Your task to perform on an android device: remove spam from my inbox in the gmail app Image 0: 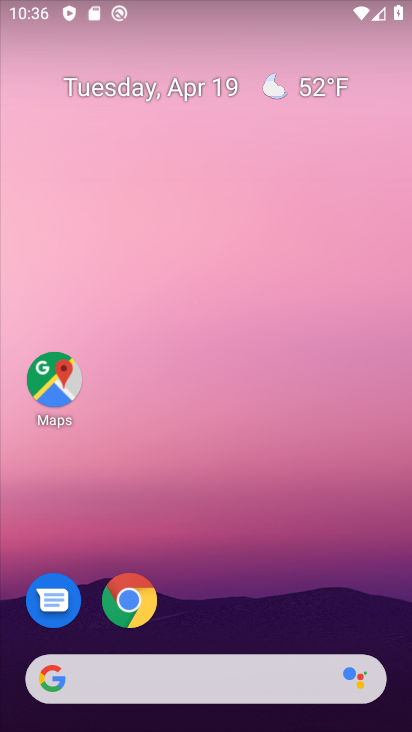
Step 0: drag from (195, 641) to (218, 45)
Your task to perform on an android device: remove spam from my inbox in the gmail app Image 1: 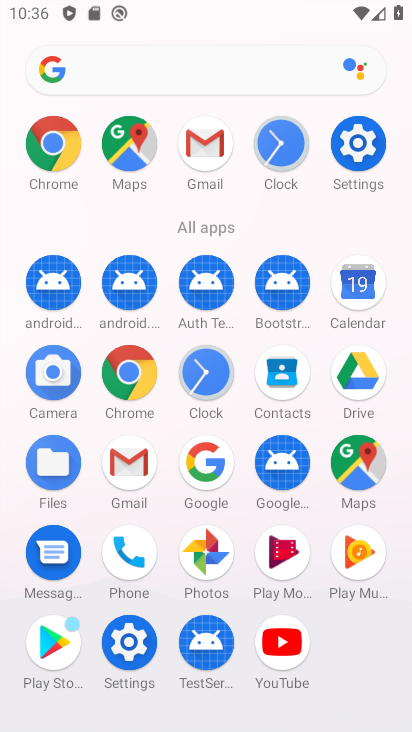
Step 1: click (138, 477)
Your task to perform on an android device: remove spam from my inbox in the gmail app Image 2: 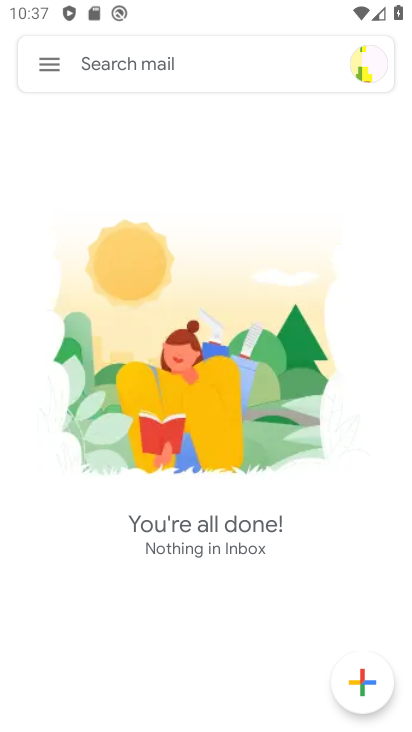
Step 2: click (39, 57)
Your task to perform on an android device: remove spam from my inbox in the gmail app Image 3: 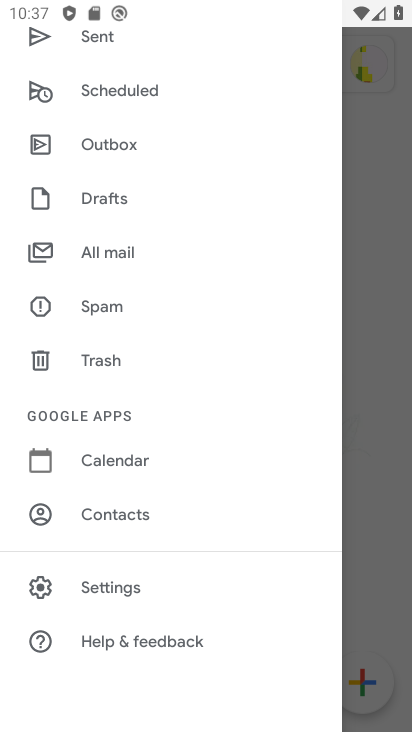
Step 3: click (101, 298)
Your task to perform on an android device: remove spam from my inbox in the gmail app Image 4: 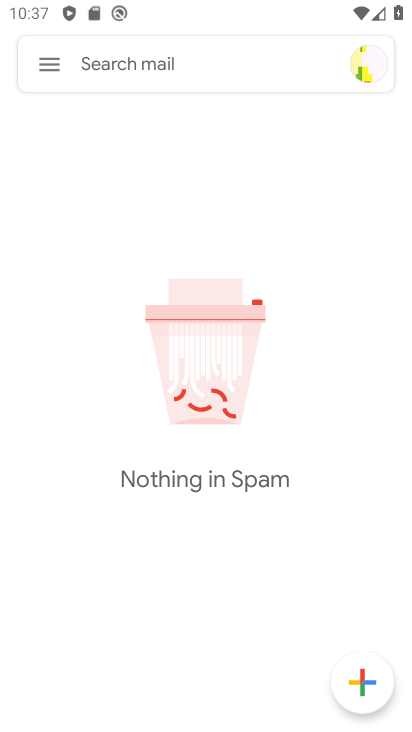
Step 4: task complete